Your task to perform on an android device: What's on the menu at McDonalds? Image 0: 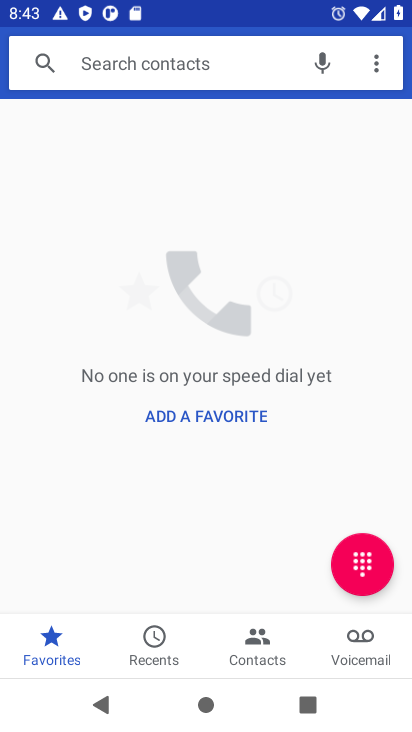
Step 0: press home button
Your task to perform on an android device: What's on the menu at McDonalds? Image 1: 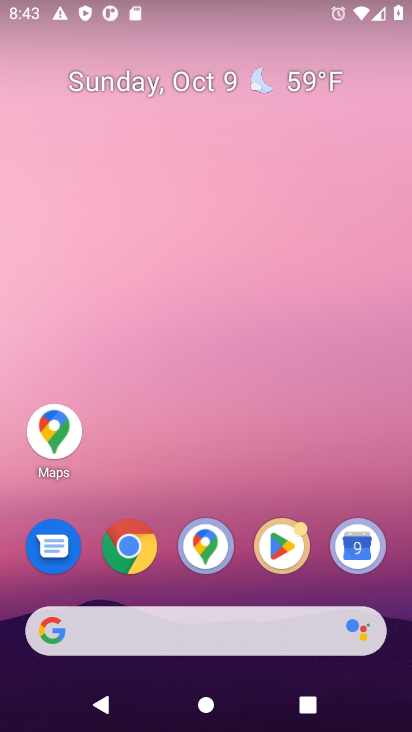
Step 1: click (127, 561)
Your task to perform on an android device: What's on the menu at McDonalds? Image 2: 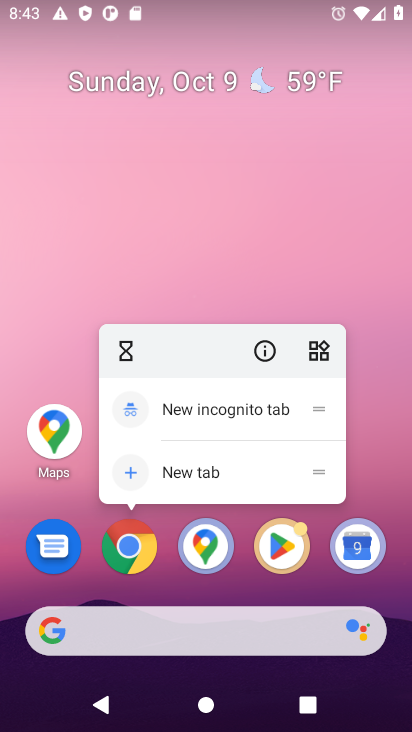
Step 2: click (134, 537)
Your task to perform on an android device: What's on the menu at McDonalds? Image 3: 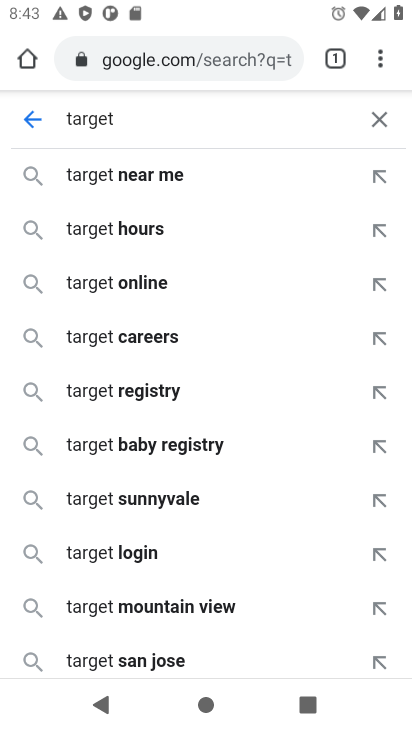
Step 3: click (381, 118)
Your task to perform on an android device: What's on the menu at McDonalds? Image 4: 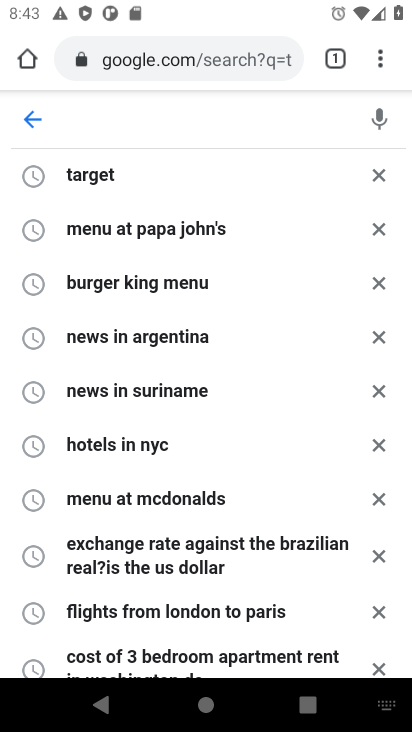
Step 4: type "menu at mcdonalds"
Your task to perform on an android device: What's on the menu at McDonalds? Image 5: 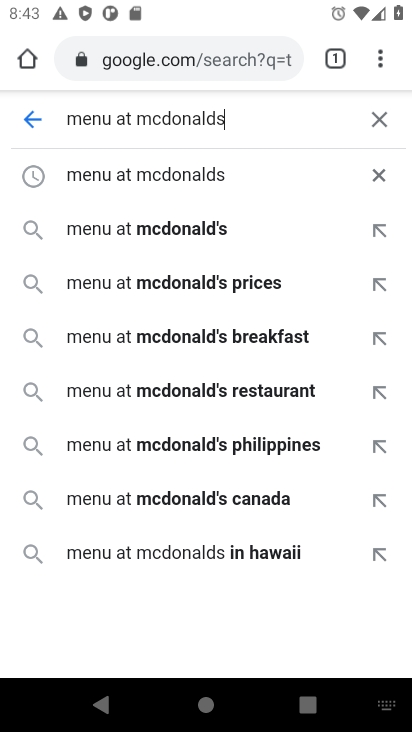
Step 5: press enter
Your task to perform on an android device: What's on the menu at McDonalds? Image 6: 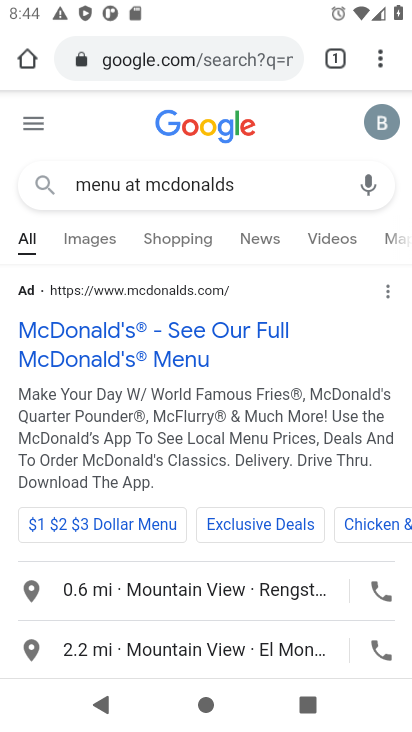
Step 6: click (70, 353)
Your task to perform on an android device: What's on the menu at McDonalds? Image 7: 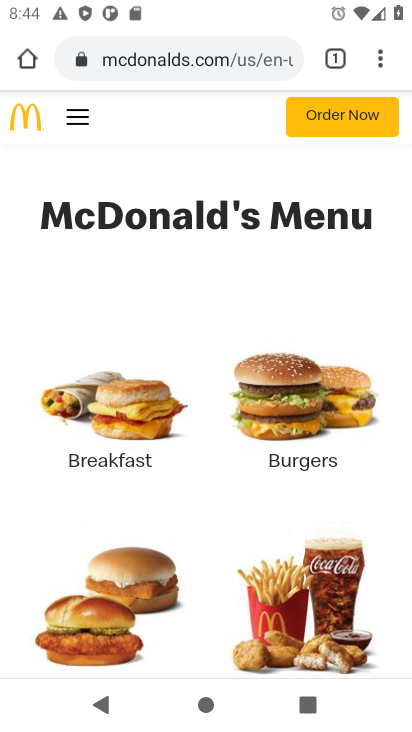
Step 7: click (213, 399)
Your task to perform on an android device: What's on the menu at McDonalds? Image 8: 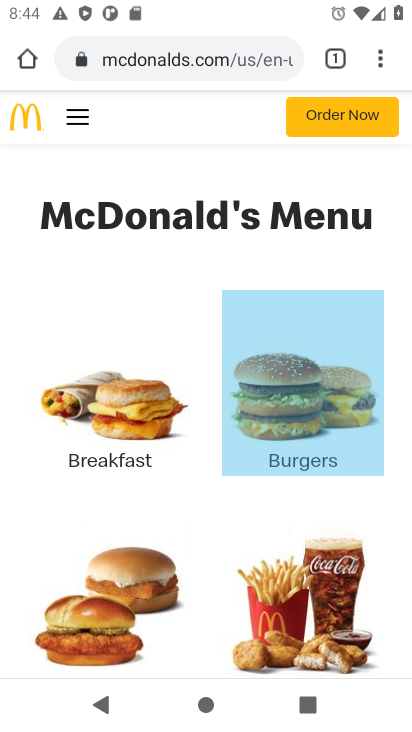
Step 8: drag from (213, 399) to (254, 267)
Your task to perform on an android device: What's on the menu at McDonalds? Image 9: 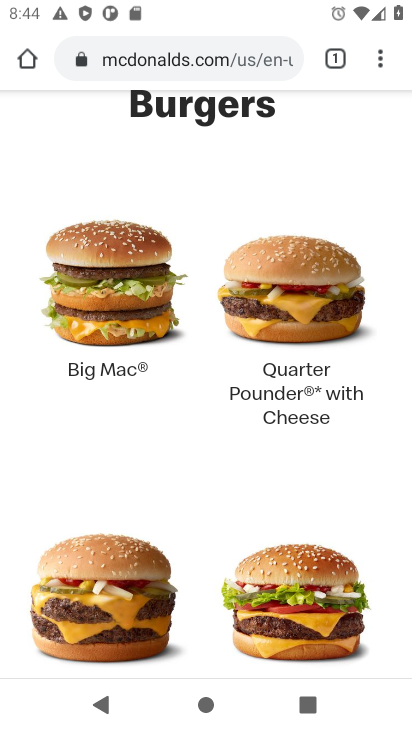
Step 9: drag from (264, 365) to (315, 30)
Your task to perform on an android device: What's on the menu at McDonalds? Image 10: 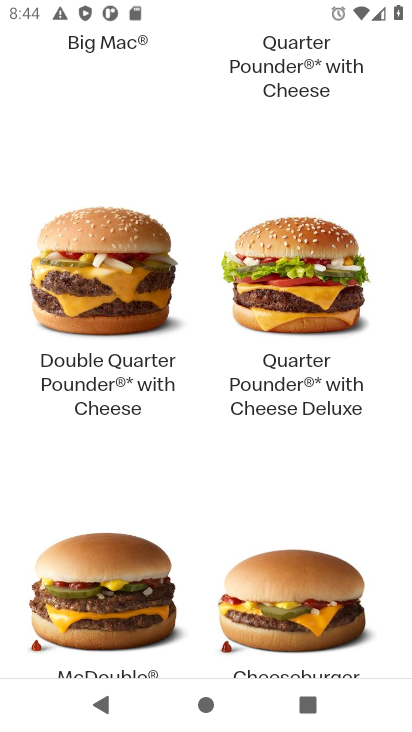
Step 10: drag from (315, 217) to (332, 9)
Your task to perform on an android device: What's on the menu at McDonalds? Image 11: 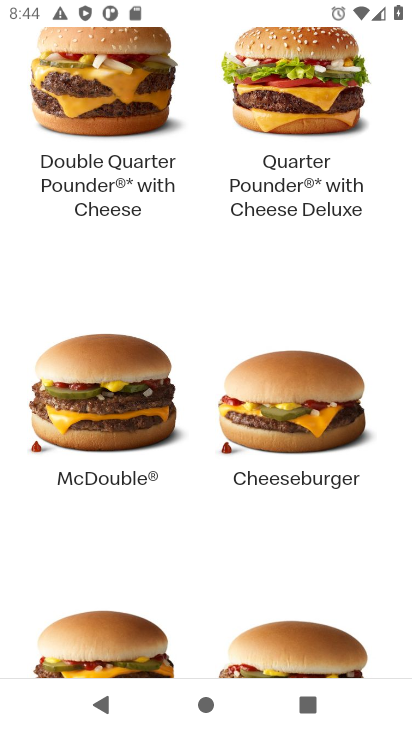
Step 11: drag from (187, 455) to (230, 203)
Your task to perform on an android device: What's on the menu at McDonalds? Image 12: 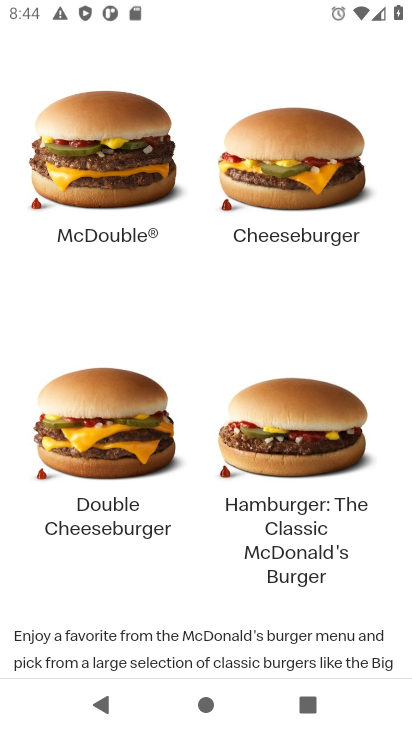
Step 12: drag from (203, 405) to (217, 117)
Your task to perform on an android device: What's on the menu at McDonalds? Image 13: 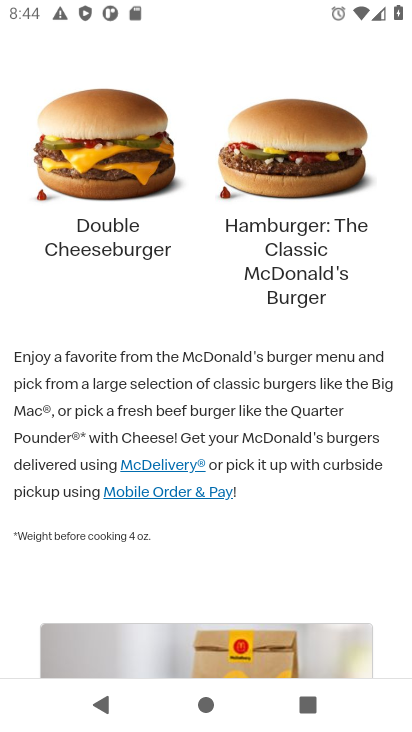
Step 13: drag from (237, 262) to (258, 724)
Your task to perform on an android device: What's on the menu at McDonalds? Image 14: 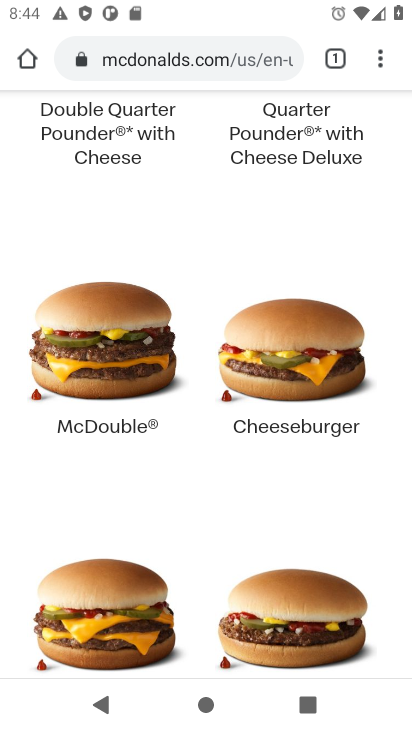
Step 14: drag from (196, 281) to (158, 595)
Your task to perform on an android device: What's on the menu at McDonalds? Image 15: 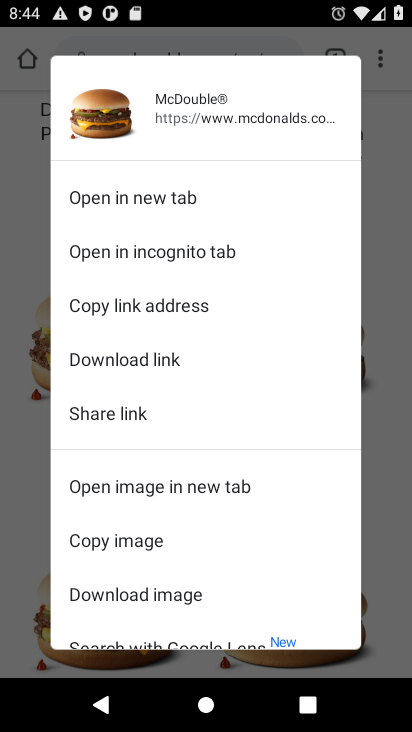
Step 15: click (23, 374)
Your task to perform on an android device: What's on the menu at McDonalds? Image 16: 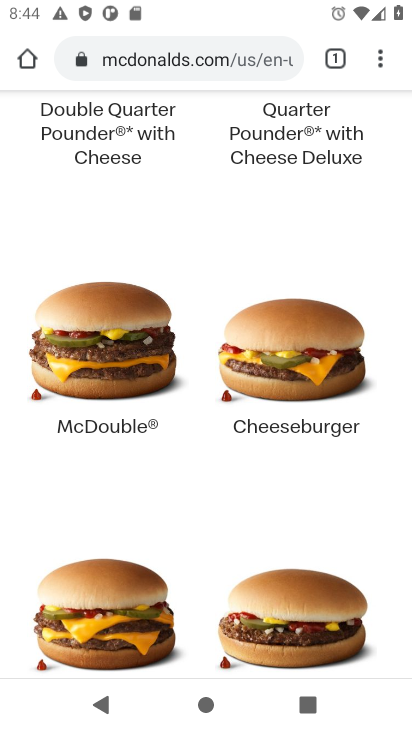
Step 16: drag from (23, 374) to (33, 555)
Your task to perform on an android device: What's on the menu at McDonalds? Image 17: 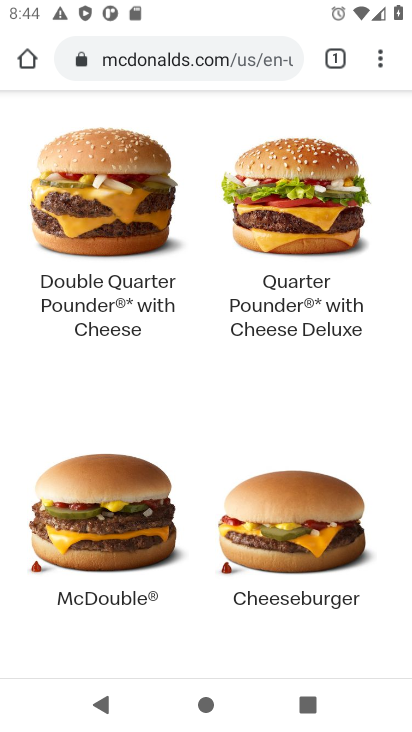
Step 17: drag from (212, 216) to (272, 729)
Your task to perform on an android device: What's on the menu at McDonalds? Image 18: 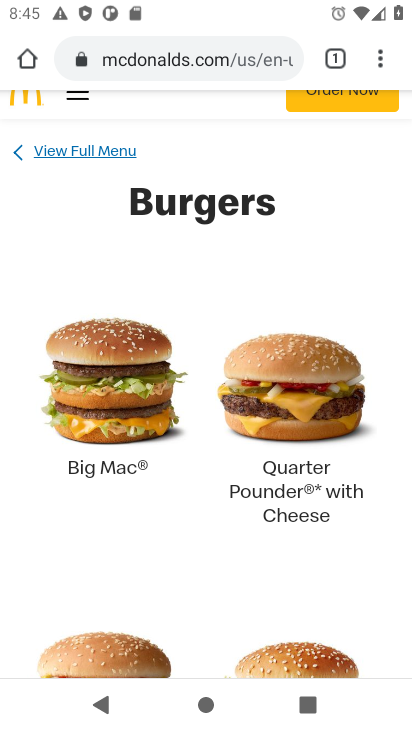
Step 18: click (77, 148)
Your task to perform on an android device: What's on the menu at McDonalds? Image 19: 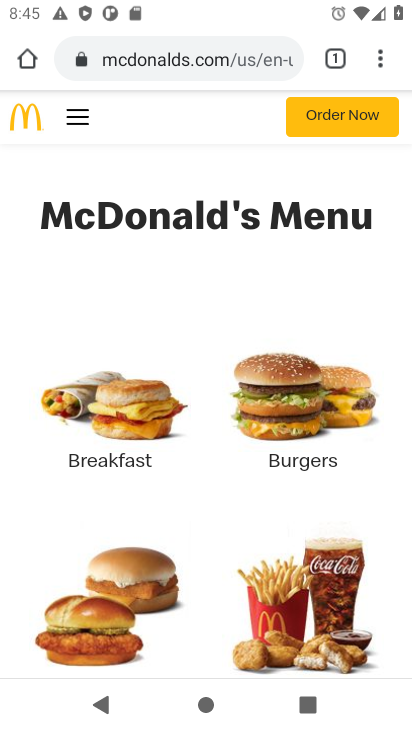
Step 19: task complete